Your task to perform on an android device: Go to Google Image 0: 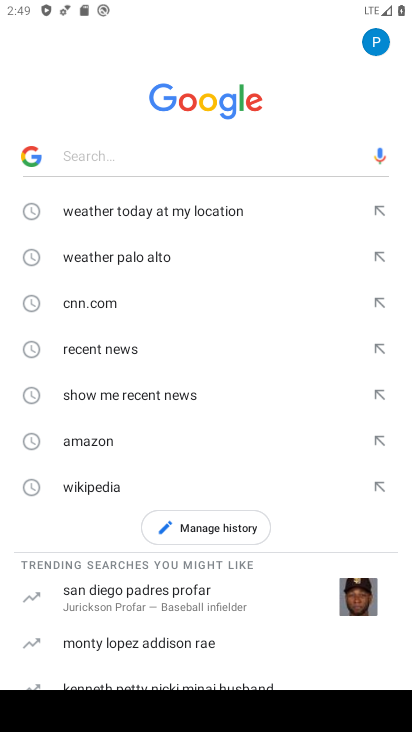
Step 0: task complete